Your task to perform on an android device: turn off notifications settings in the gmail app Image 0: 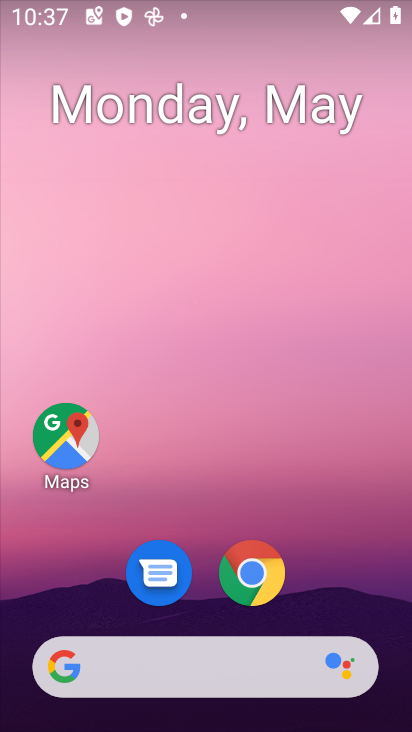
Step 0: drag from (359, 590) to (232, 12)
Your task to perform on an android device: turn off notifications settings in the gmail app Image 1: 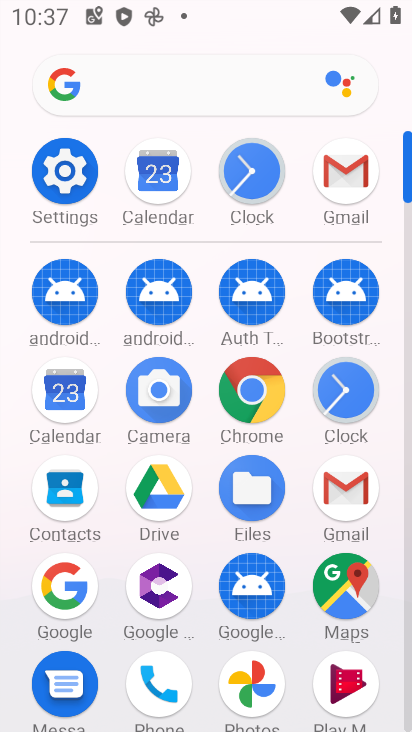
Step 1: click (343, 176)
Your task to perform on an android device: turn off notifications settings in the gmail app Image 2: 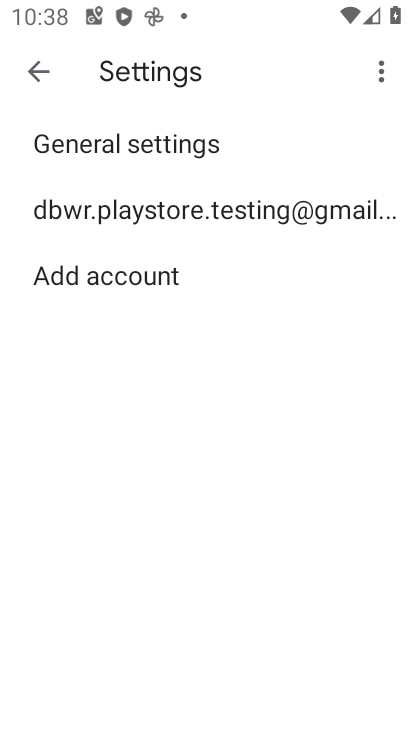
Step 2: click (148, 158)
Your task to perform on an android device: turn off notifications settings in the gmail app Image 3: 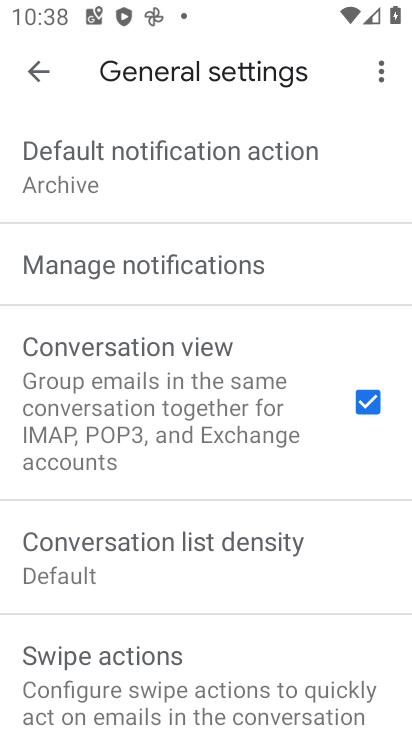
Step 3: click (199, 261)
Your task to perform on an android device: turn off notifications settings in the gmail app Image 4: 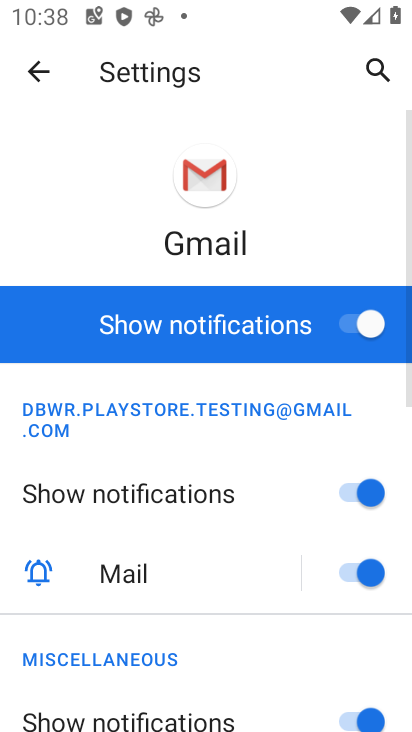
Step 4: click (342, 302)
Your task to perform on an android device: turn off notifications settings in the gmail app Image 5: 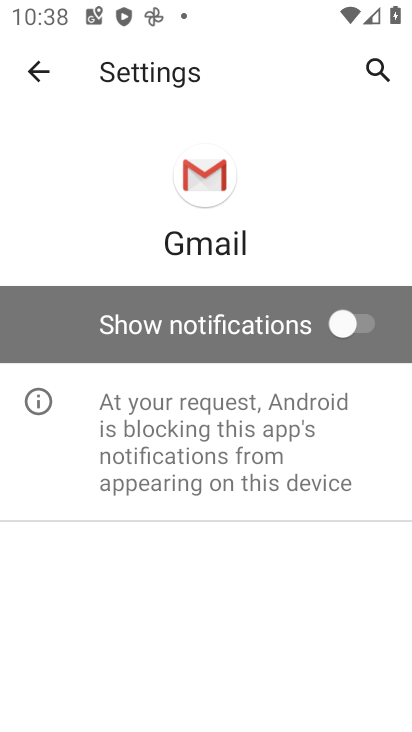
Step 5: task complete